Your task to perform on an android device: Open display settings Image 0: 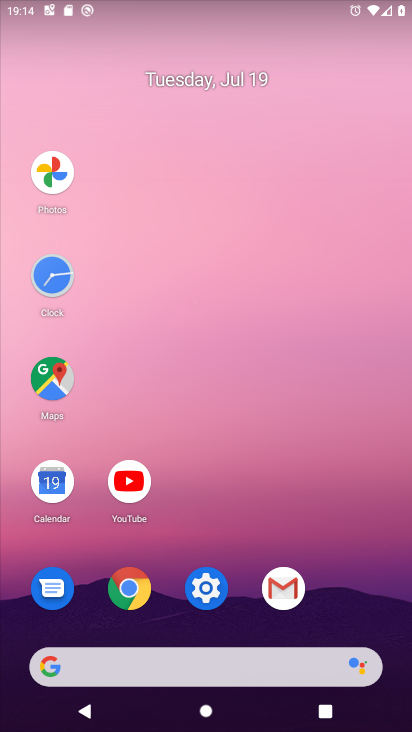
Step 0: click (206, 589)
Your task to perform on an android device: Open display settings Image 1: 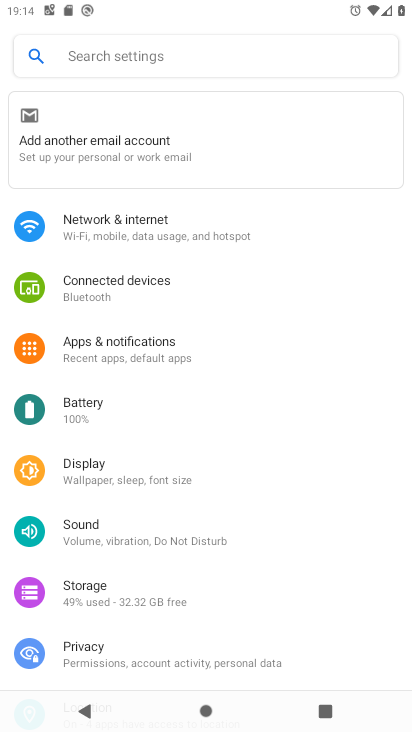
Step 1: click (95, 465)
Your task to perform on an android device: Open display settings Image 2: 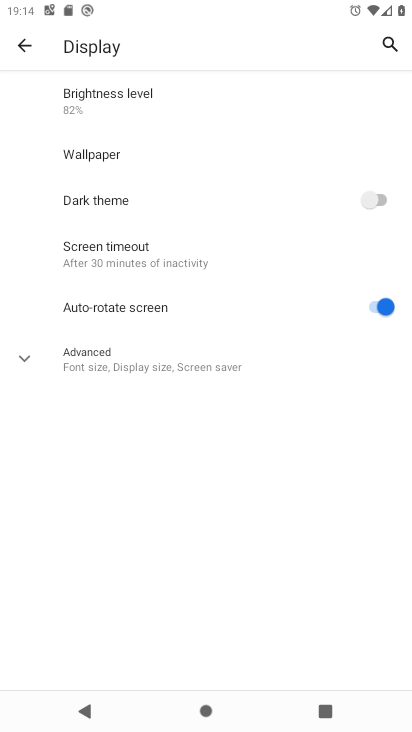
Step 2: task complete